Your task to perform on an android device: check out phone information Image 0: 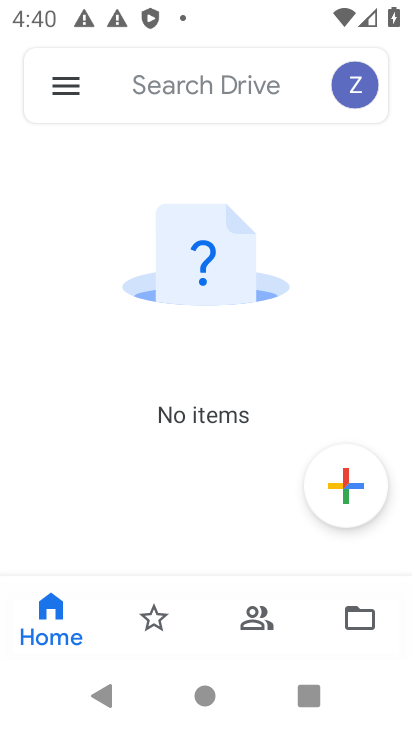
Step 0: press home button
Your task to perform on an android device: check out phone information Image 1: 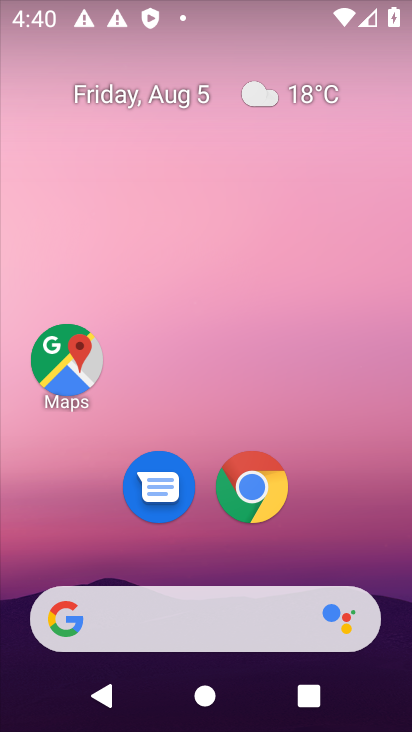
Step 1: drag from (341, 365) to (340, 168)
Your task to perform on an android device: check out phone information Image 2: 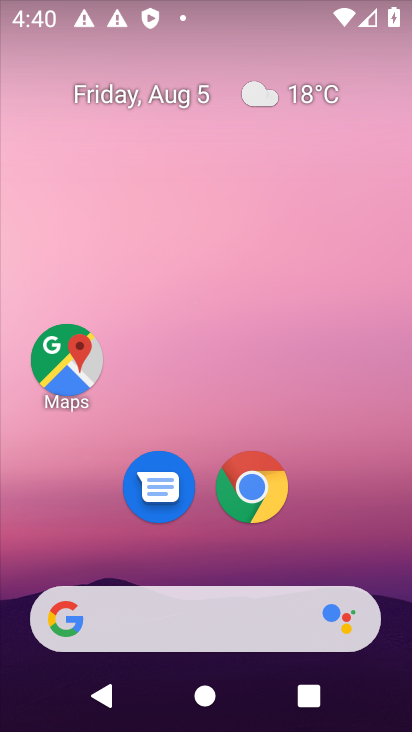
Step 2: drag from (369, 518) to (363, 98)
Your task to perform on an android device: check out phone information Image 3: 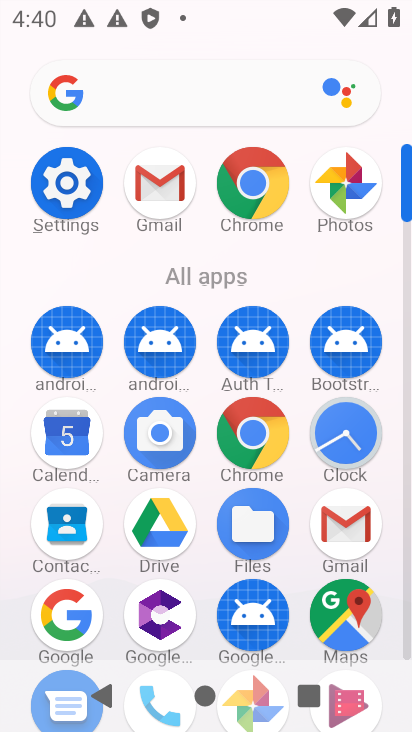
Step 3: drag from (214, 578) to (185, 204)
Your task to perform on an android device: check out phone information Image 4: 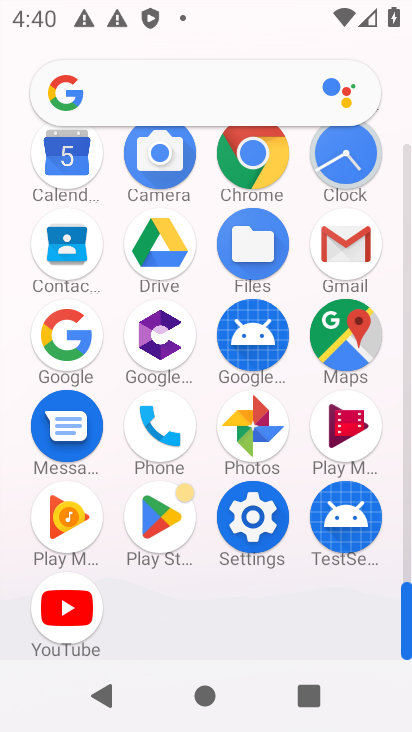
Step 4: click (260, 520)
Your task to perform on an android device: check out phone information Image 5: 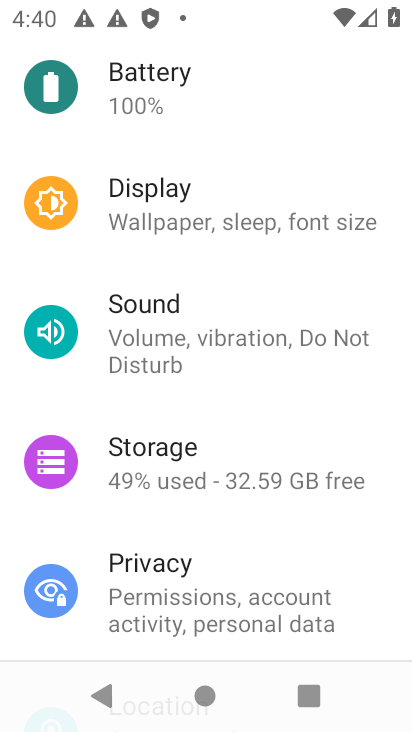
Step 5: drag from (270, 540) to (213, 202)
Your task to perform on an android device: check out phone information Image 6: 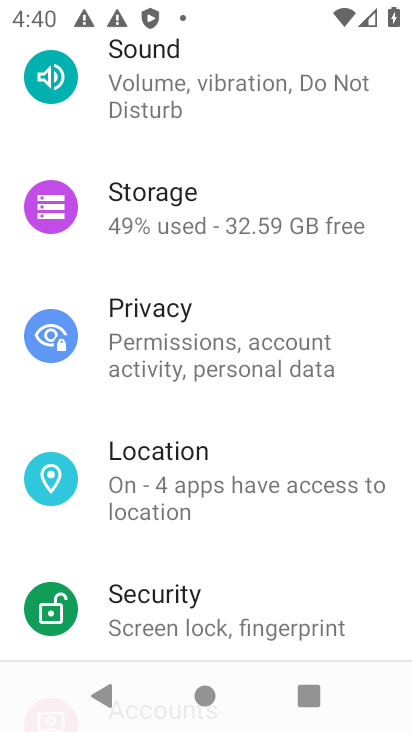
Step 6: drag from (173, 605) to (145, 227)
Your task to perform on an android device: check out phone information Image 7: 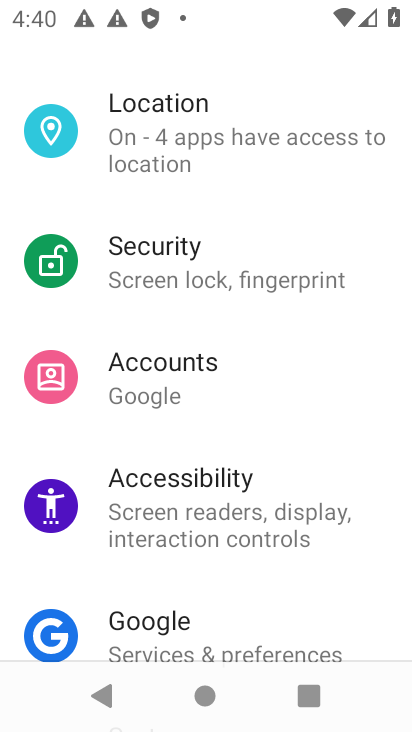
Step 7: drag from (212, 598) to (200, 183)
Your task to perform on an android device: check out phone information Image 8: 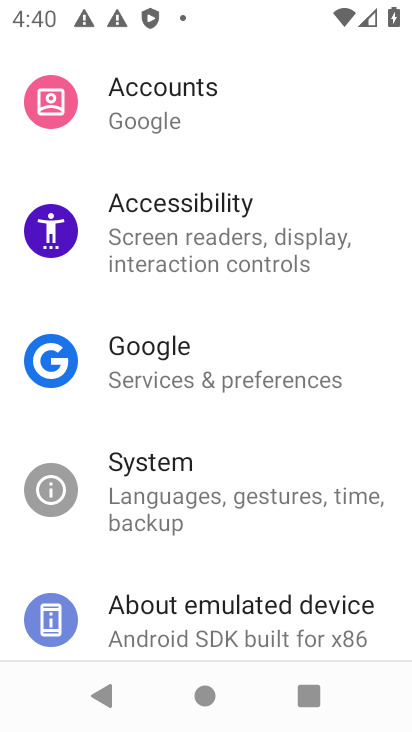
Step 8: drag from (251, 541) to (272, 132)
Your task to perform on an android device: check out phone information Image 9: 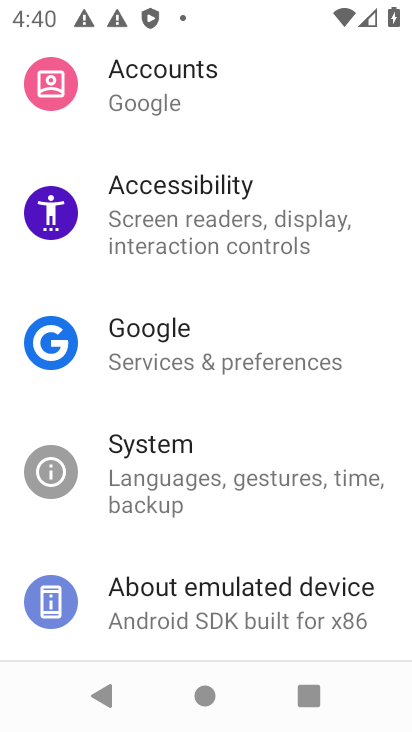
Step 9: click (195, 477)
Your task to perform on an android device: check out phone information Image 10: 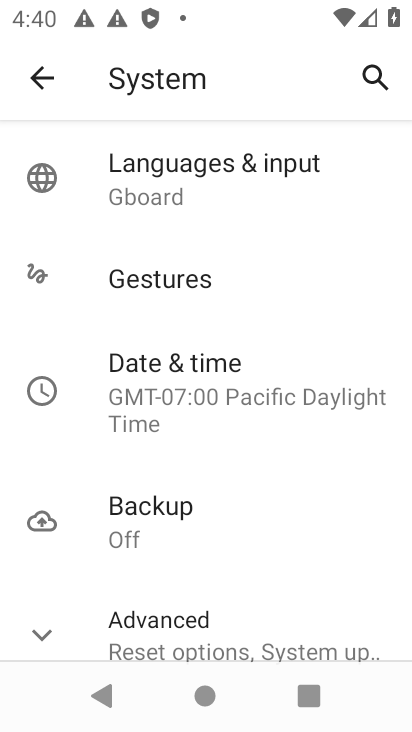
Step 10: task complete